Your task to perform on an android device: Open Reddit.com Image 0: 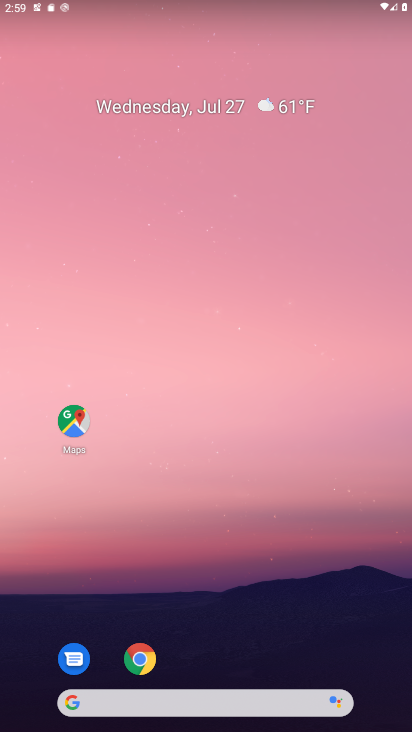
Step 0: click (135, 657)
Your task to perform on an android device: Open Reddit.com Image 1: 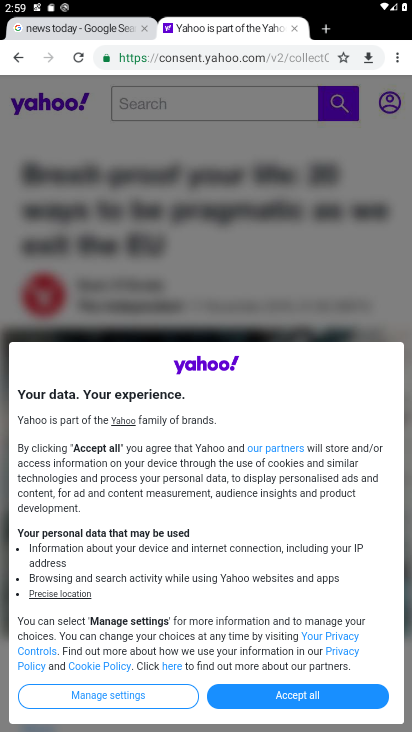
Step 1: click (223, 55)
Your task to perform on an android device: Open Reddit.com Image 2: 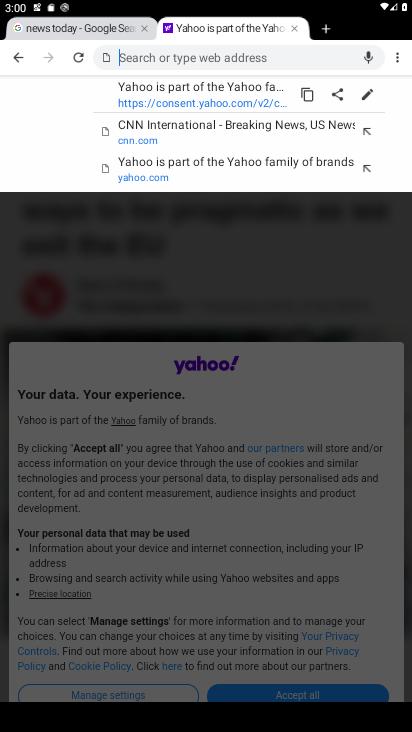
Step 2: type "reddit.com"
Your task to perform on an android device: Open Reddit.com Image 3: 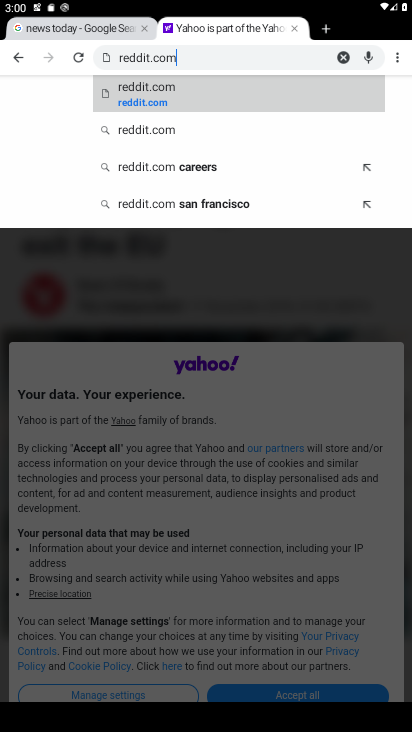
Step 3: click (162, 104)
Your task to perform on an android device: Open Reddit.com Image 4: 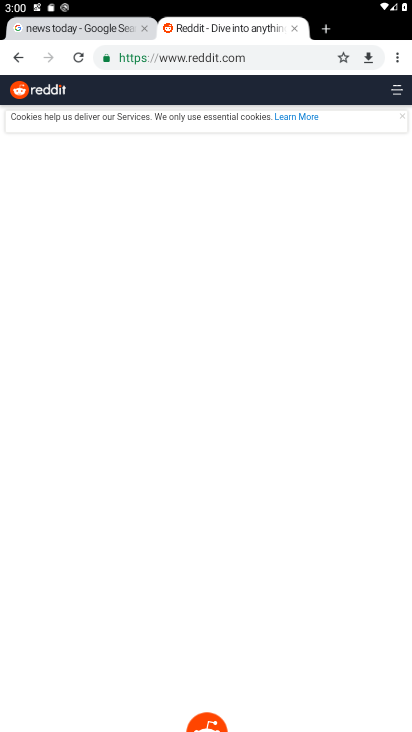
Step 4: task complete